Your task to perform on an android device: Go to Google maps Image 0: 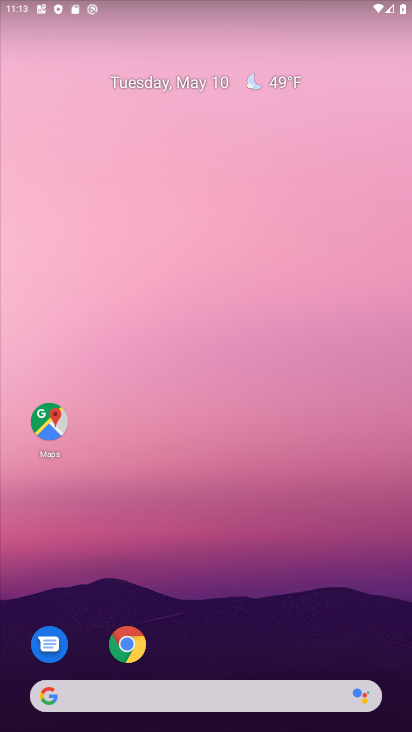
Step 0: click (48, 446)
Your task to perform on an android device: Go to Google maps Image 1: 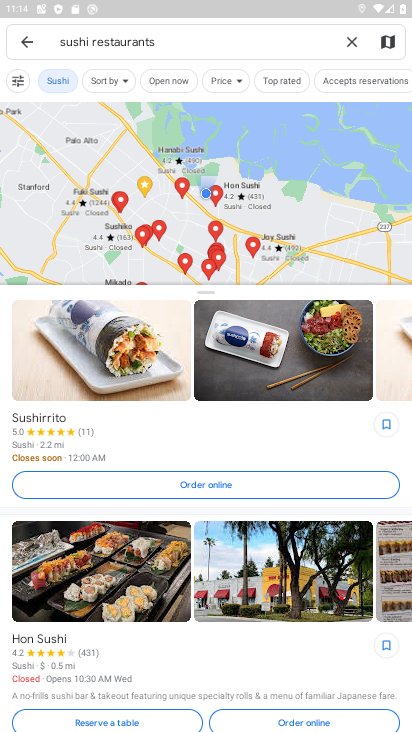
Step 1: task complete